Your task to perform on an android device: Show me recent news Image 0: 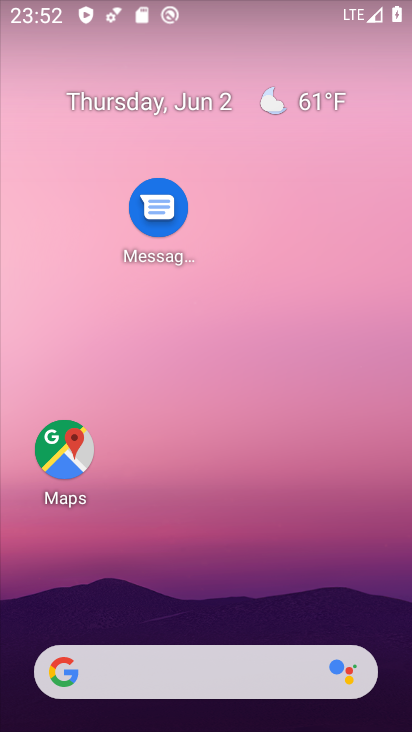
Step 0: drag from (198, 623) to (140, 8)
Your task to perform on an android device: Show me recent news Image 1: 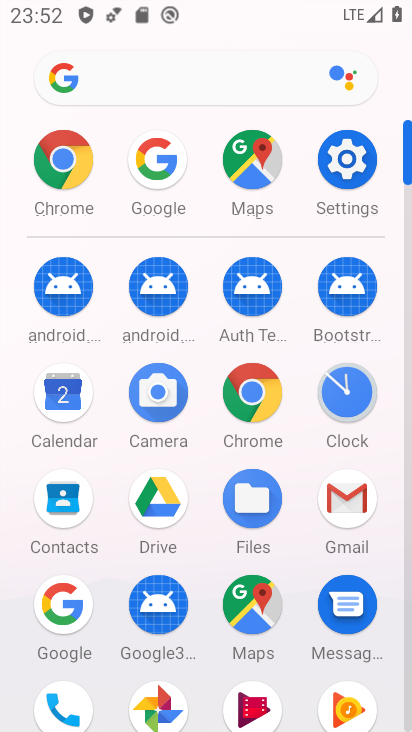
Step 1: click (51, 597)
Your task to perform on an android device: Show me recent news Image 2: 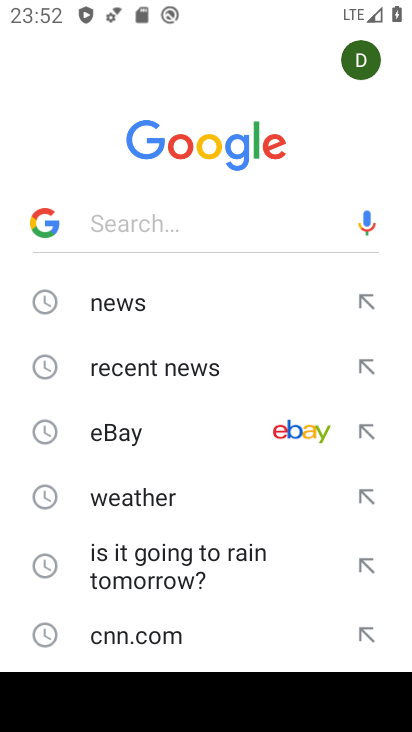
Step 2: click (158, 307)
Your task to perform on an android device: Show me recent news Image 3: 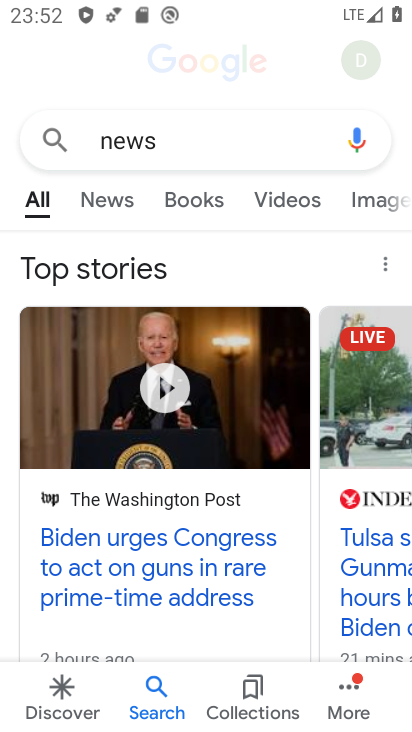
Step 3: task complete